Your task to perform on an android device: Open Google Chrome Image 0: 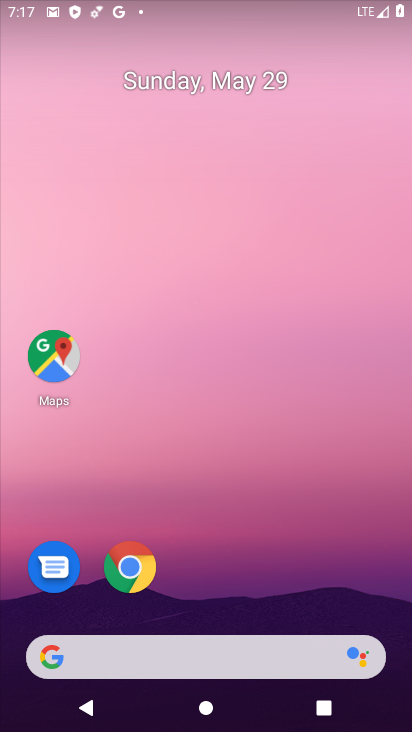
Step 0: click (140, 568)
Your task to perform on an android device: Open Google Chrome Image 1: 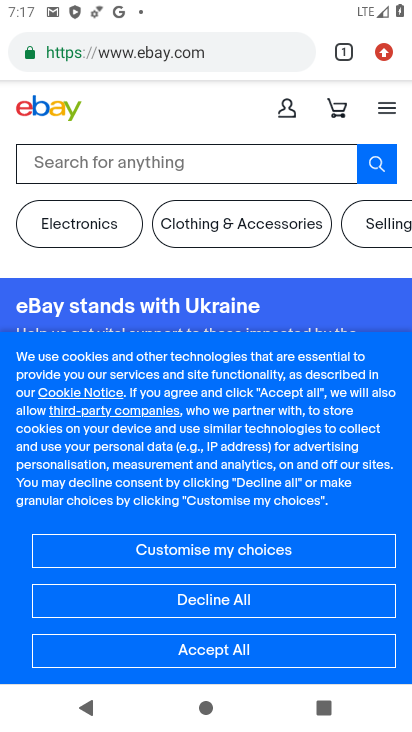
Step 1: click (394, 51)
Your task to perform on an android device: Open Google Chrome Image 2: 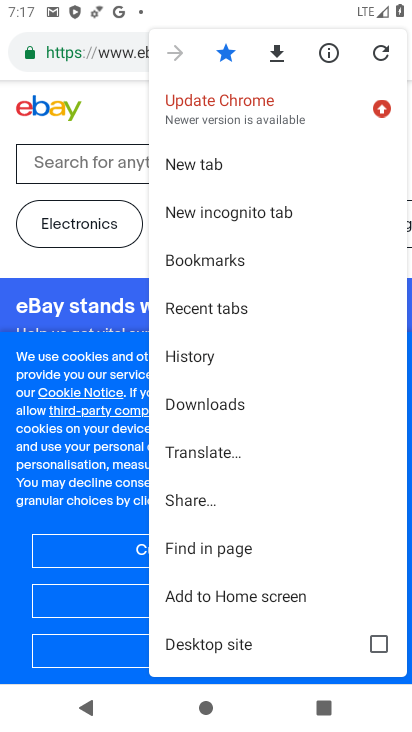
Step 2: click (198, 156)
Your task to perform on an android device: Open Google Chrome Image 3: 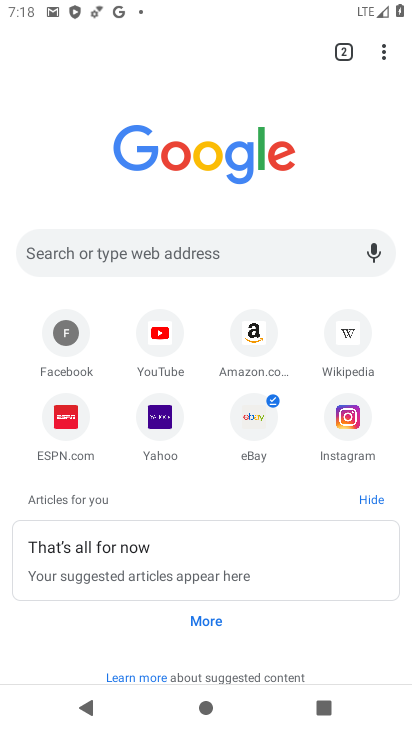
Step 3: task complete